Your task to perform on an android device: toggle priority inbox in the gmail app Image 0: 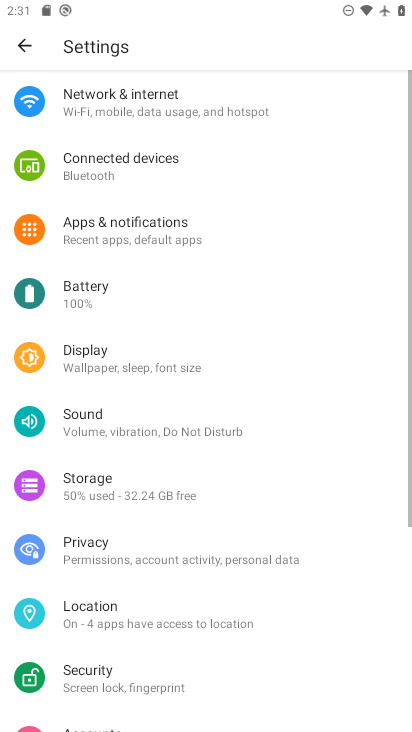
Step 0: press home button
Your task to perform on an android device: toggle priority inbox in the gmail app Image 1: 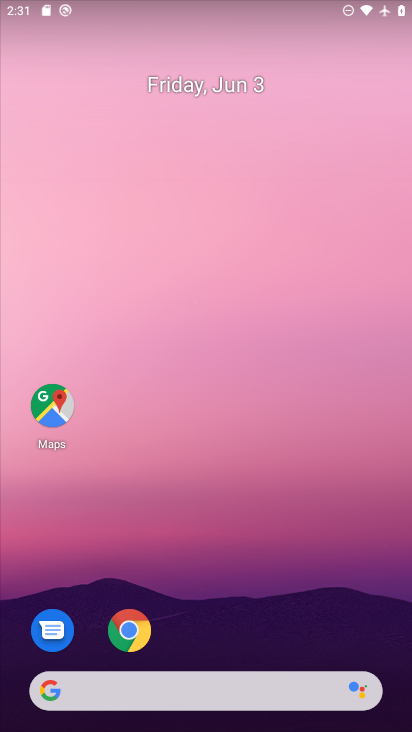
Step 1: drag from (203, 728) to (204, 127)
Your task to perform on an android device: toggle priority inbox in the gmail app Image 2: 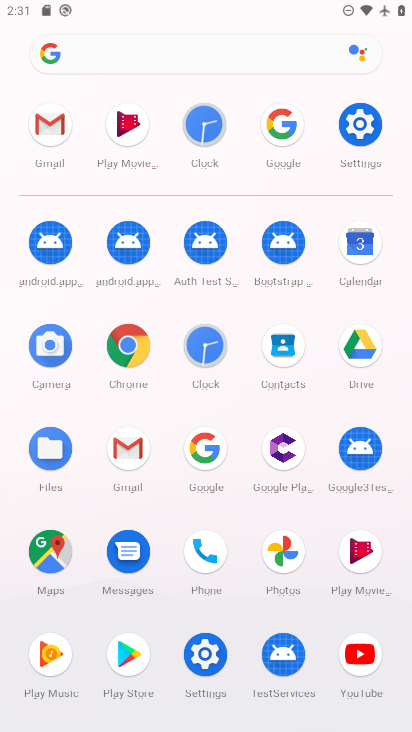
Step 2: click (133, 453)
Your task to perform on an android device: toggle priority inbox in the gmail app Image 3: 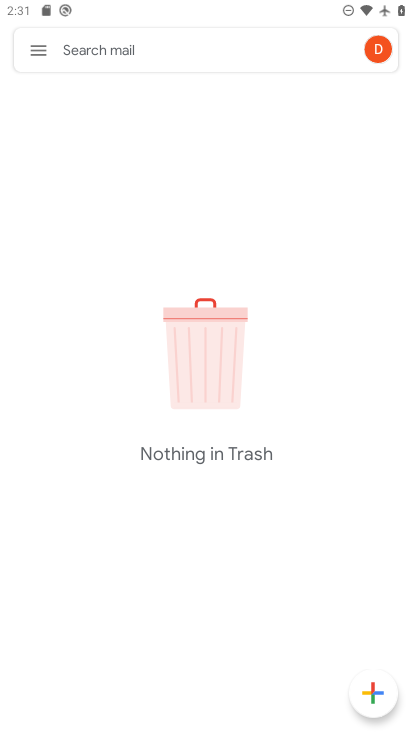
Step 3: click (37, 48)
Your task to perform on an android device: toggle priority inbox in the gmail app Image 4: 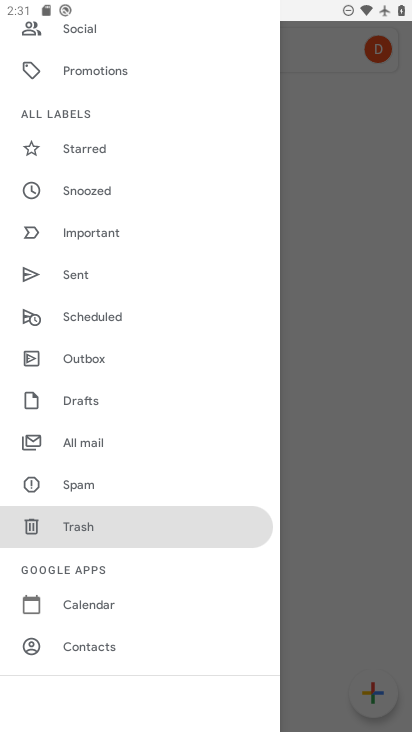
Step 4: drag from (100, 632) to (124, 274)
Your task to perform on an android device: toggle priority inbox in the gmail app Image 5: 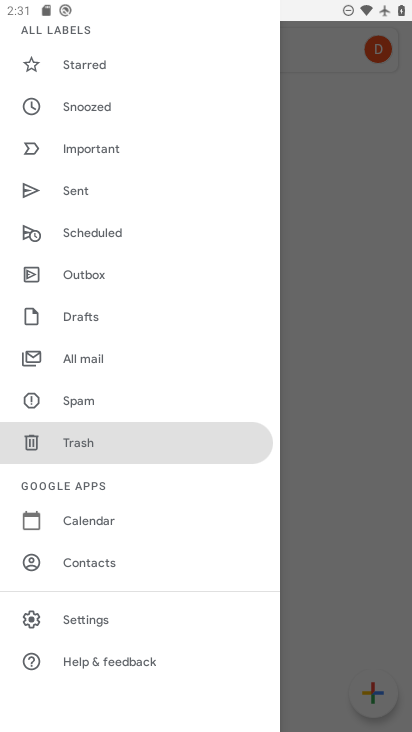
Step 5: click (87, 615)
Your task to perform on an android device: toggle priority inbox in the gmail app Image 6: 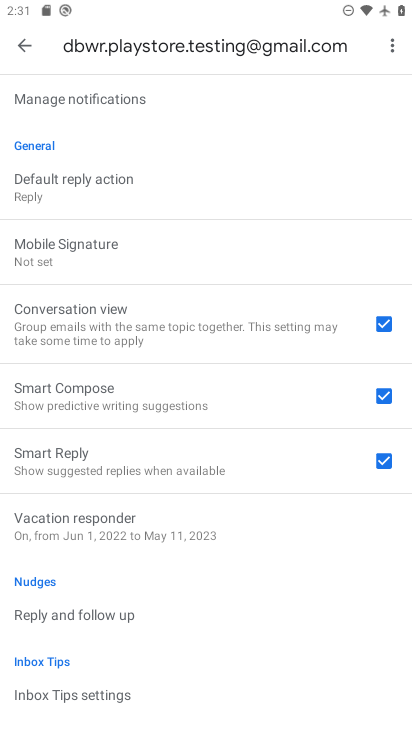
Step 6: drag from (172, 127) to (177, 590)
Your task to perform on an android device: toggle priority inbox in the gmail app Image 7: 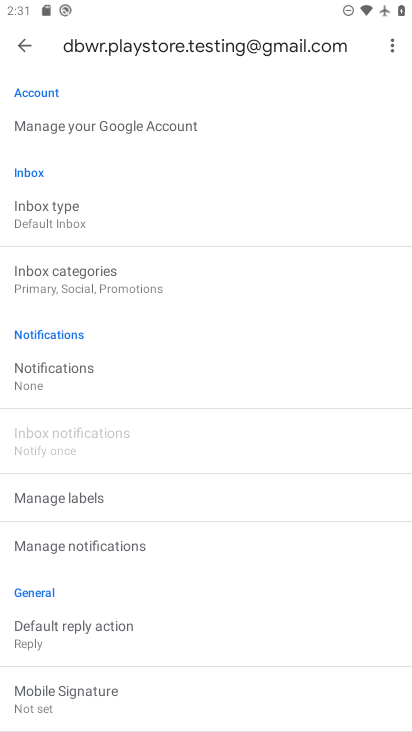
Step 7: click (67, 218)
Your task to perform on an android device: toggle priority inbox in the gmail app Image 8: 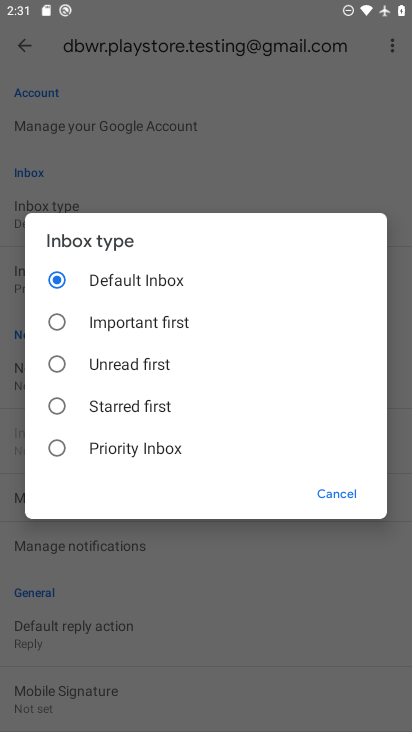
Step 8: click (58, 447)
Your task to perform on an android device: toggle priority inbox in the gmail app Image 9: 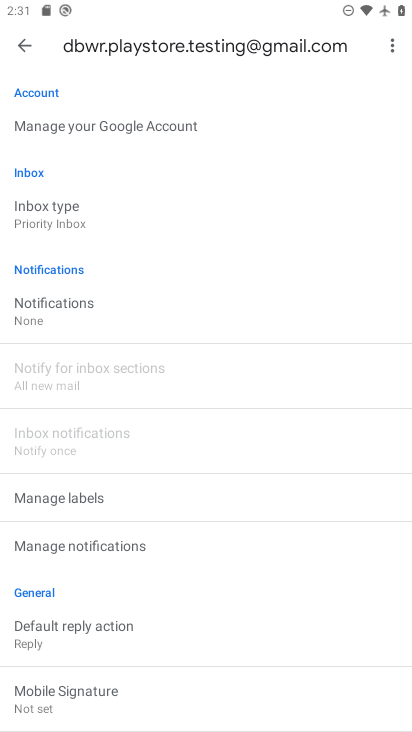
Step 9: task complete